Your task to perform on an android device: What's the weather going to be this weekend? Image 0: 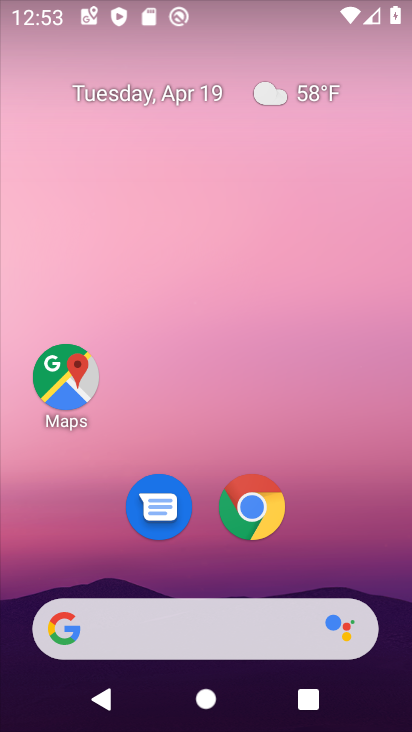
Step 0: drag from (193, 580) to (258, 128)
Your task to perform on an android device: What's the weather going to be this weekend? Image 1: 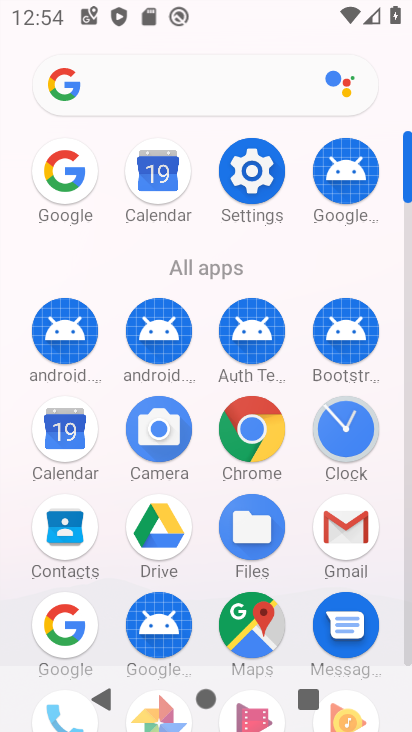
Step 1: click (239, 427)
Your task to perform on an android device: What's the weather going to be this weekend? Image 2: 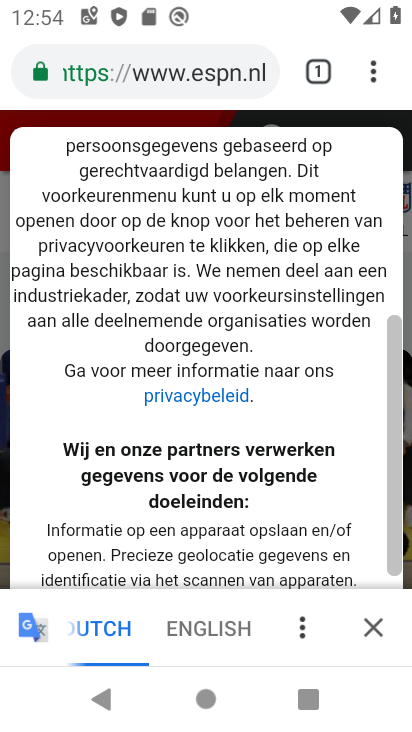
Step 2: click (175, 78)
Your task to perform on an android device: What's the weather going to be this weekend? Image 3: 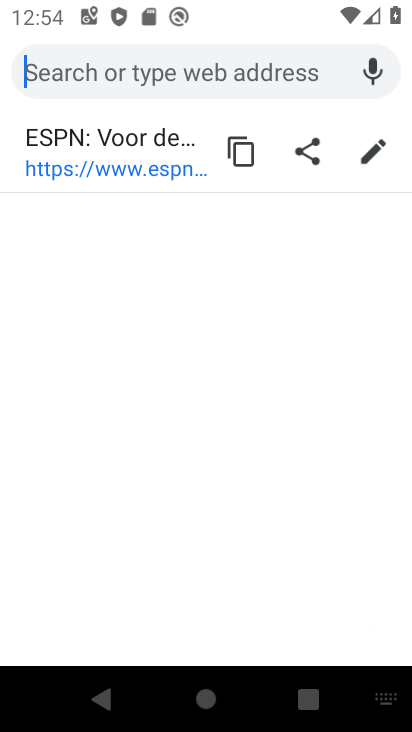
Step 3: type "whats the weather going to be this weekend"
Your task to perform on an android device: What's the weather going to be this weekend? Image 4: 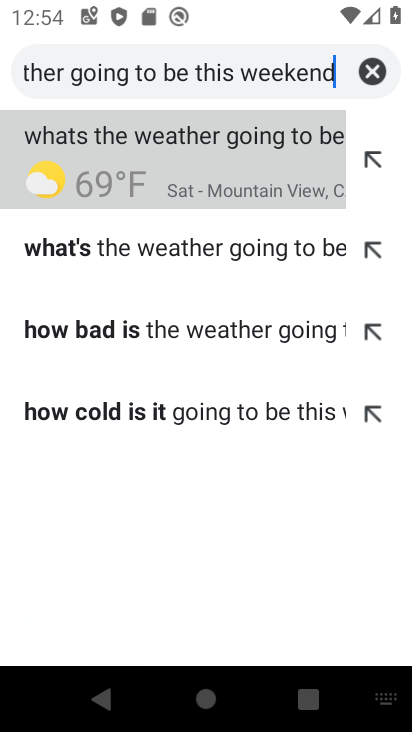
Step 4: click (161, 140)
Your task to perform on an android device: What's the weather going to be this weekend? Image 5: 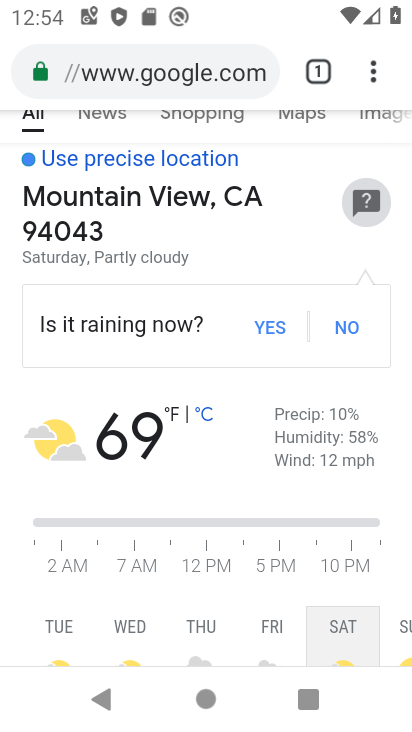
Step 5: task complete